Your task to perform on an android device: Go to ESPN.com Image 0: 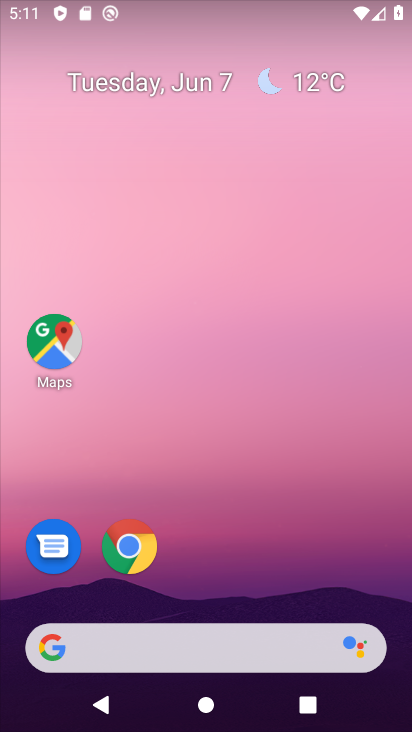
Step 0: drag from (184, 570) to (275, 83)
Your task to perform on an android device: Go to ESPN.com Image 1: 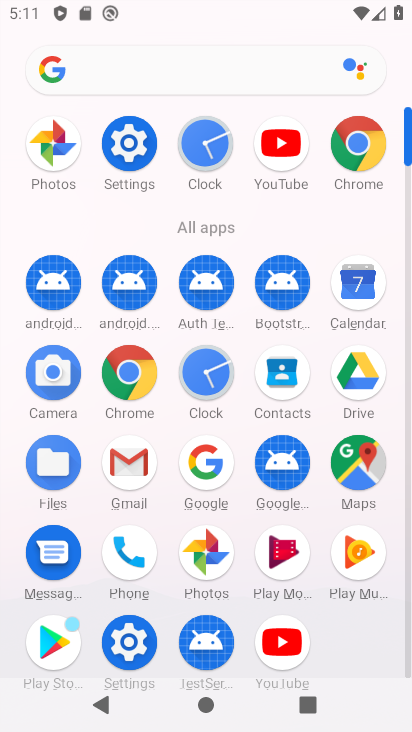
Step 1: click (125, 363)
Your task to perform on an android device: Go to ESPN.com Image 2: 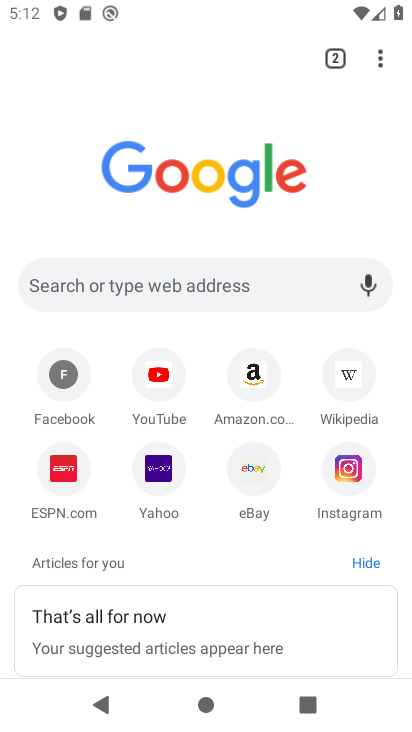
Step 2: click (226, 284)
Your task to perform on an android device: Go to ESPN.com Image 3: 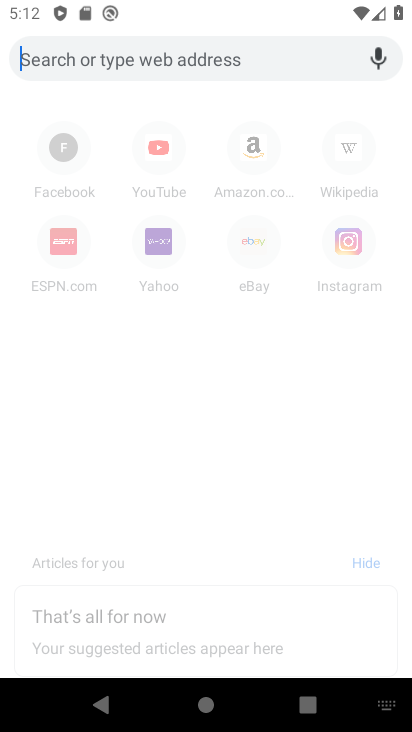
Step 3: type "ESPN.com"
Your task to perform on an android device: Go to ESPN.com Image 4: 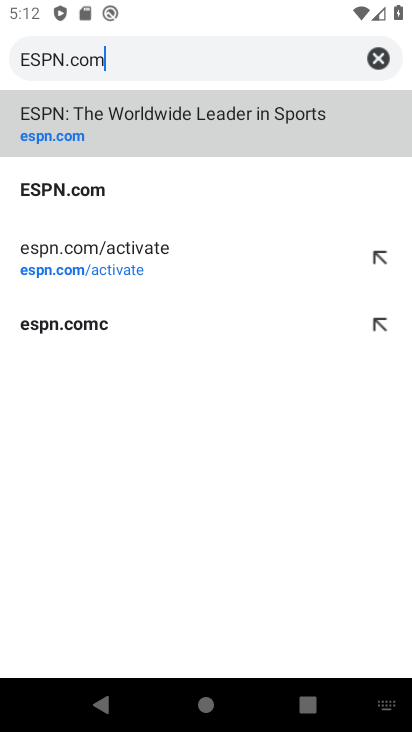
Step 4: click (34, 136)
Your task to perform on an android device: Go to ESPN.com Image 5: 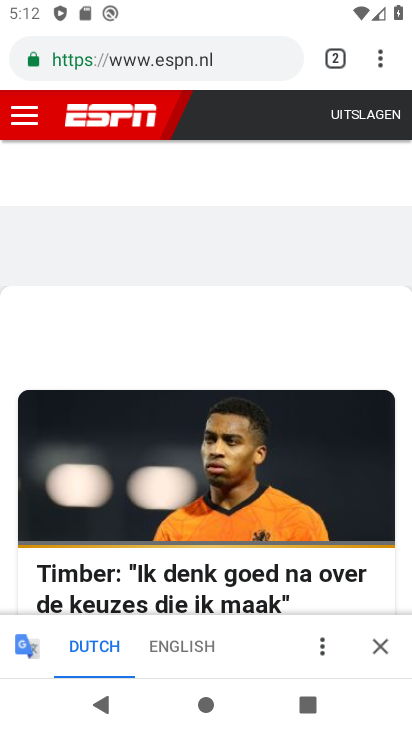
Step 5: task complete